Your task to perform on an android device: turn off data saver in the chrome app Image 0: 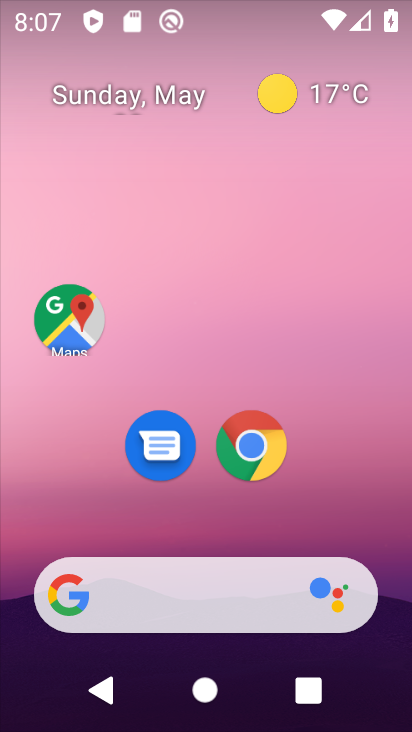
Step 0: click (239, 432)
Your task to perform on an android device: turn off data saver in the chrome app Image 1: 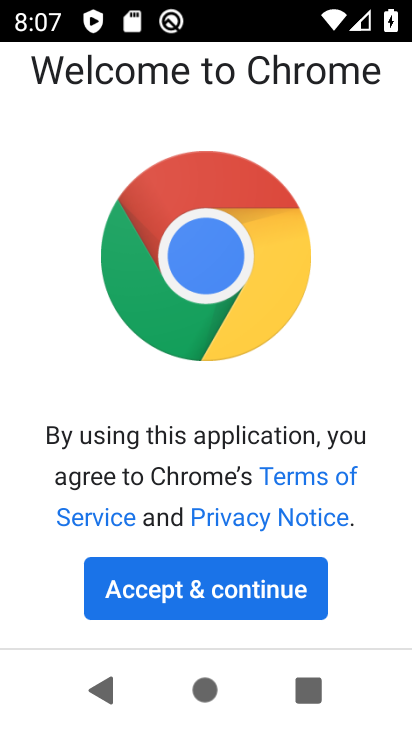
Step 1: click (235, 581)
Your task to perform on an android device: turn off data saver in the chrome app Image 2: 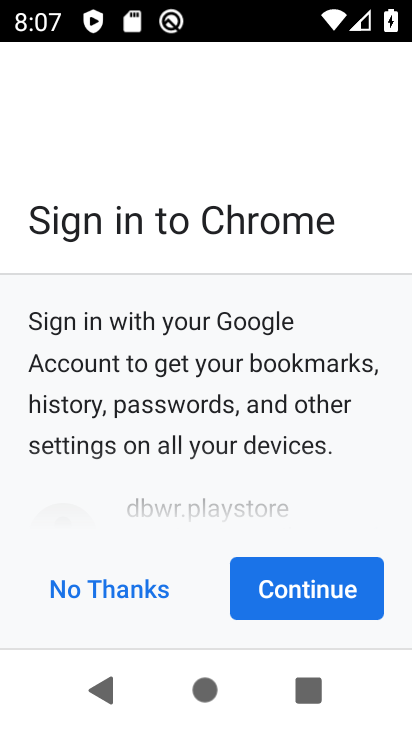
Step 2: click (258, 579)
Your task to perform on an android device: turn off data saver in the chrome app Image 3: 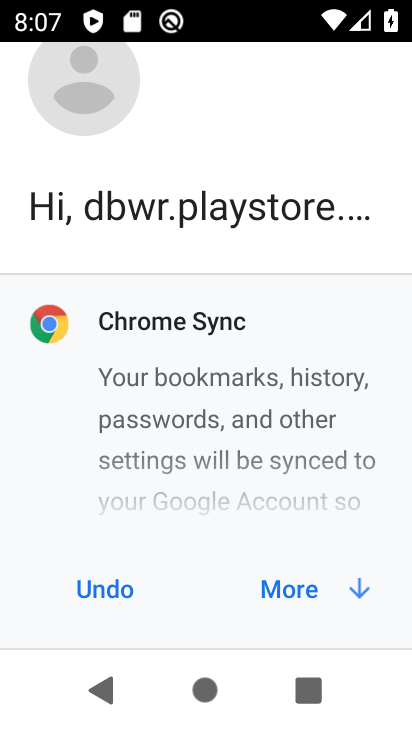
Step 3: click (288, 590)
Your task to perform on an android device: turn off data saver in the chrome app Image 4: 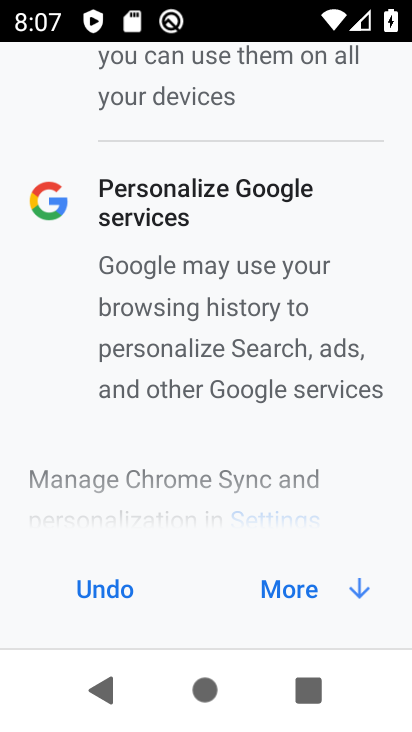
Step 4: click (290, 590)
Your task to perform on an android device: turn off data saver in the chrome app Image 5: 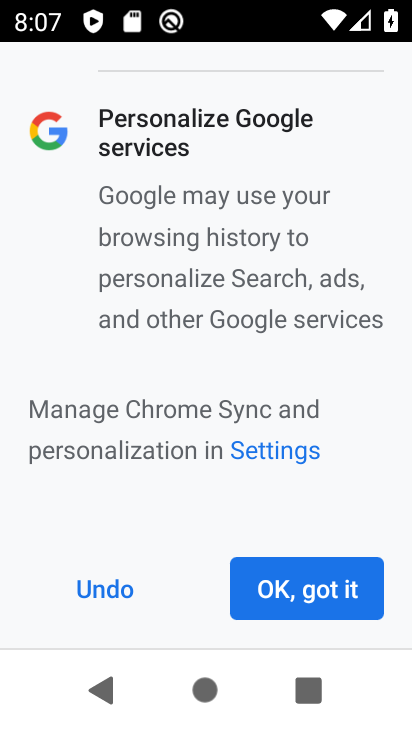
Step 5: click (290, 590)
Your task to perform on an android device: turn off data saver in the chrome app Image 6: 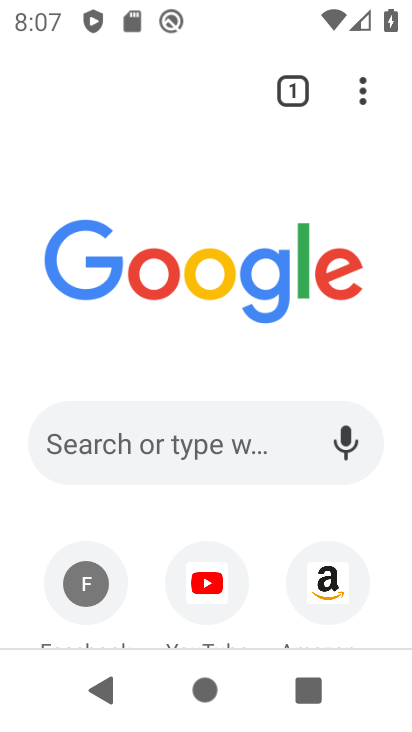
Step 6: drag from (361, 89) to (143, 465)
Your task to perform on an android device: turn off data saver in the chrome app Image 7: 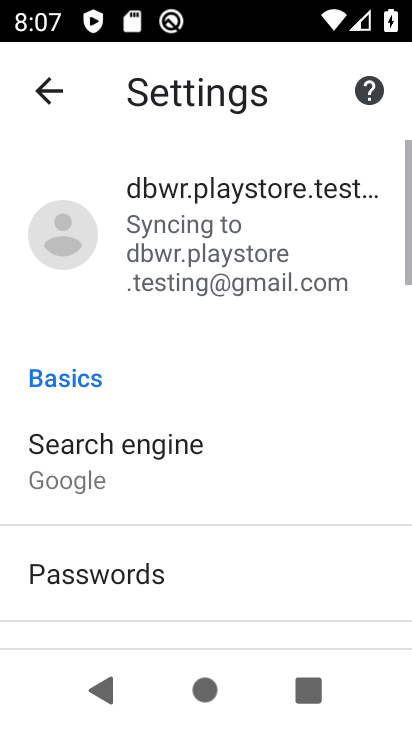
Step 7: drag from (195, 521) to (198, 198)
Your task to perform on an android device: turn off data saver in the chrome app Image 8: 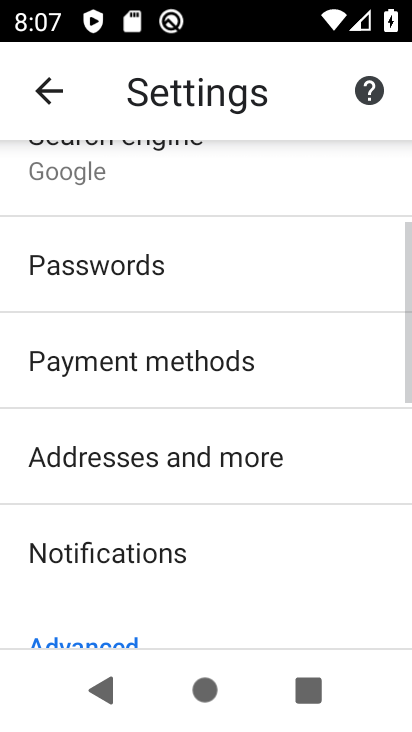
Step 8: drag from (203, 427) to (205, 265)
Your task to perform on an android device: turn off data saver in the chrome app Image 9: 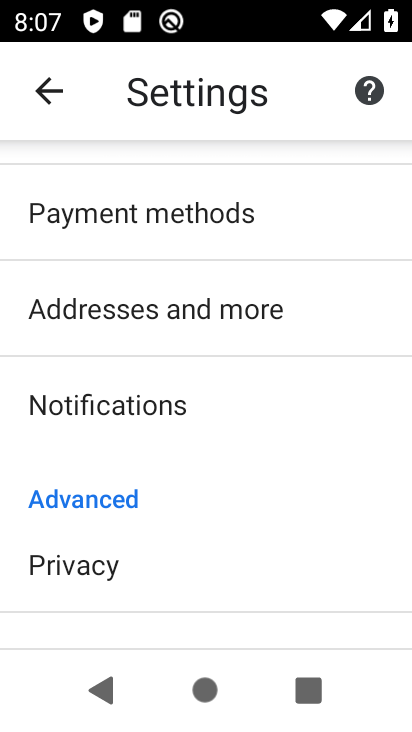
Step 9: drag from (237, 508) to (238, 298)
Your task to perform on an android device: turn off data saver in the chrome app Image 10: 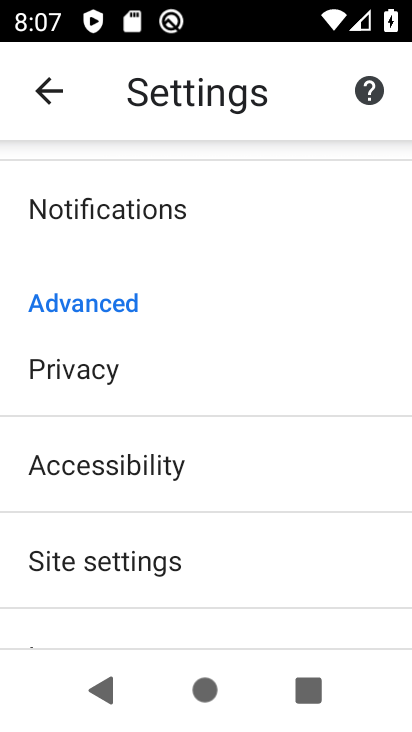
Step 10: drag from (247, 469) to (245, 269)
Your task to perform on an android device: turn off data saver in the chrome app Image 11: 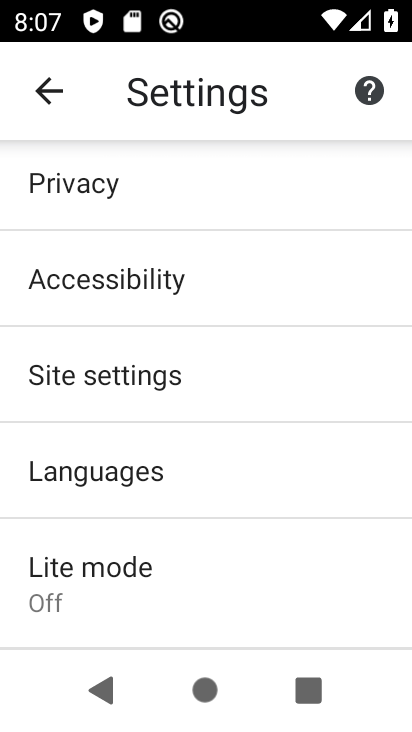
Step 11: click (208, 558)
Your task to perform on an android device: turn off data saver in the chrome app Image 12: 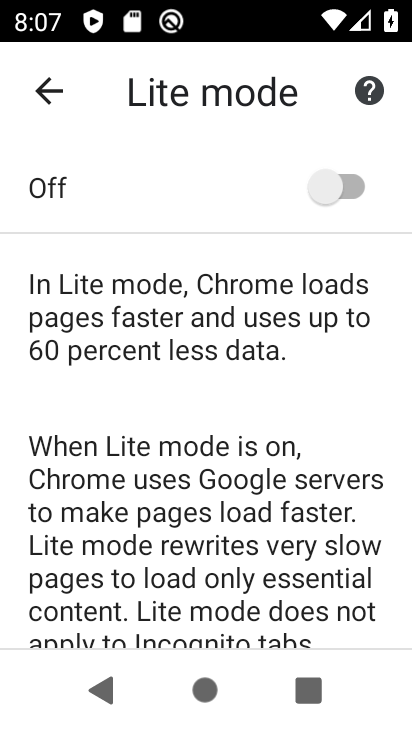
Step 12: task complete